Your task to perform on an android device: Open ESPN.com Image 0: 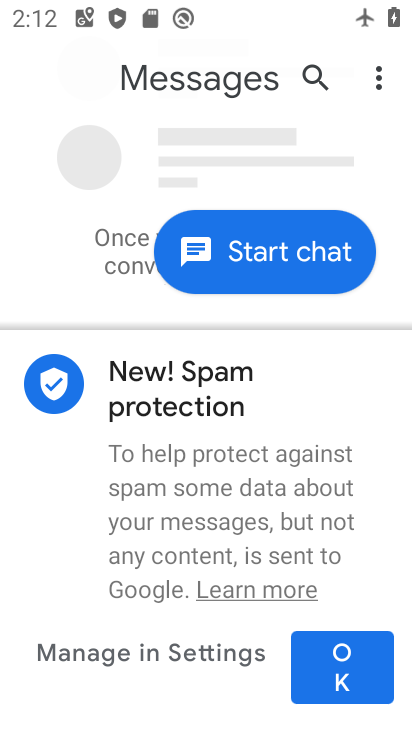
Step 0: press home button
Your task to perform on an android device: Open ESPN.com Image 1: 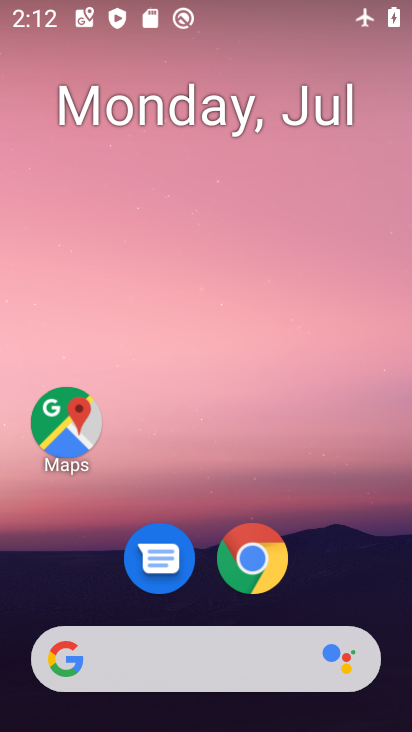
Step 1: press home button
Your task to perform on an android device: Open ESPN.com Image 2: 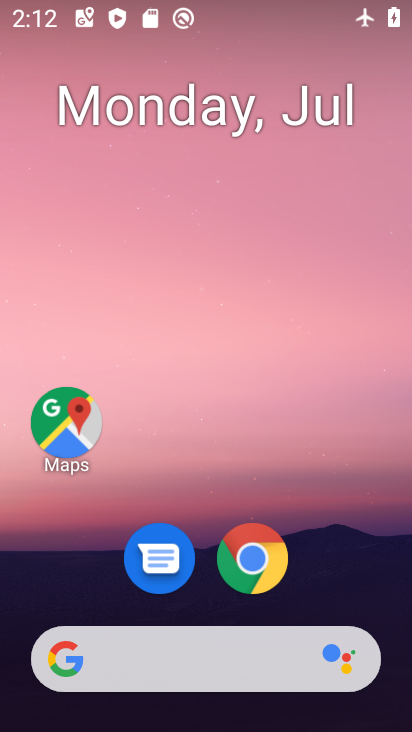
Step 2: drag from (357, 530) to (353, 97)
Your task to perform on an android device: Open ESPN.com Image 3: 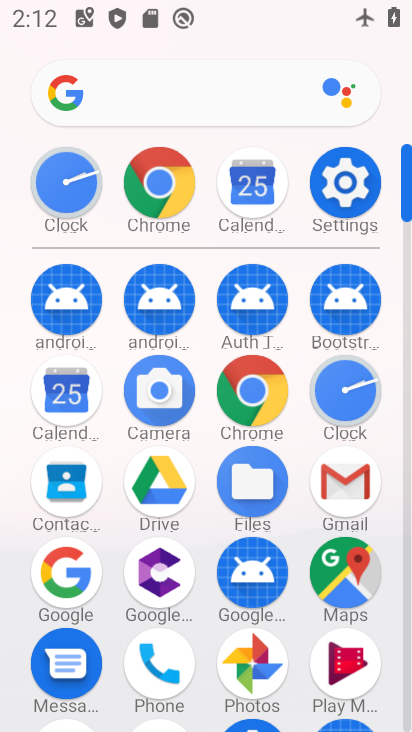
Step 3: click (261, 382)
Your task to perform on an android device: Open ESPN.com Image 4: 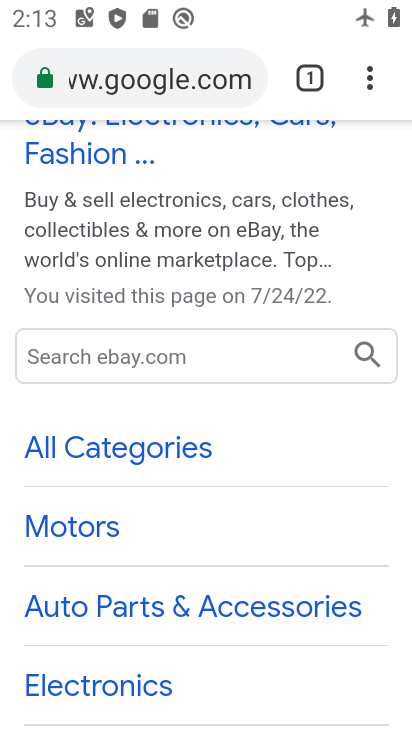
Step 4: click (174, 86)
Your task to perform on an android device: Open ESPN.com Image 5: 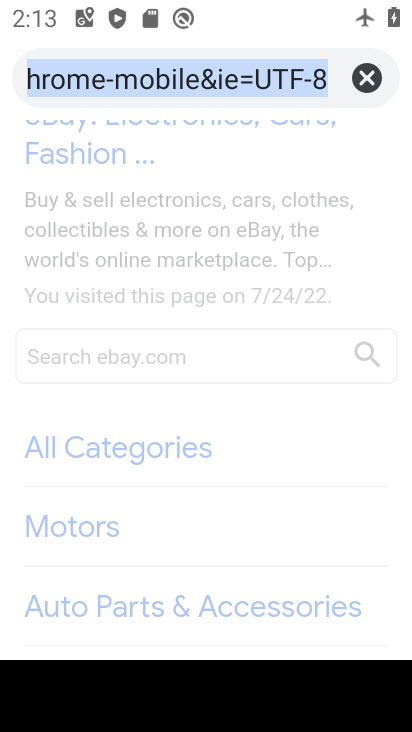
Step 5: type "espn.com"
Your task to perform on an android device: Open ESPN.com Image 6: 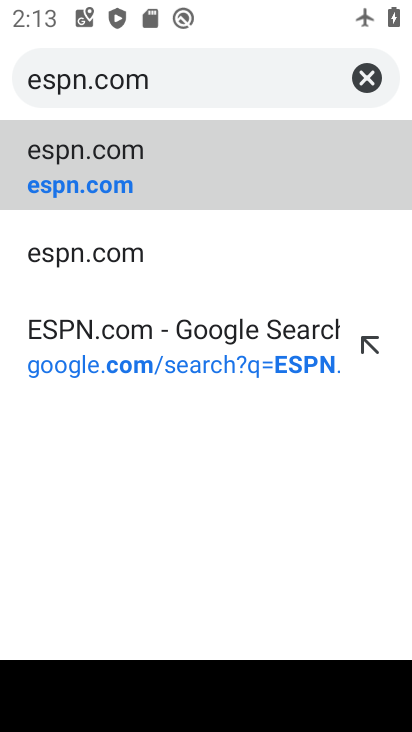
Step 6: click (298, 189)
Your task to perform on an android device: Open ESPN.com Image 7: 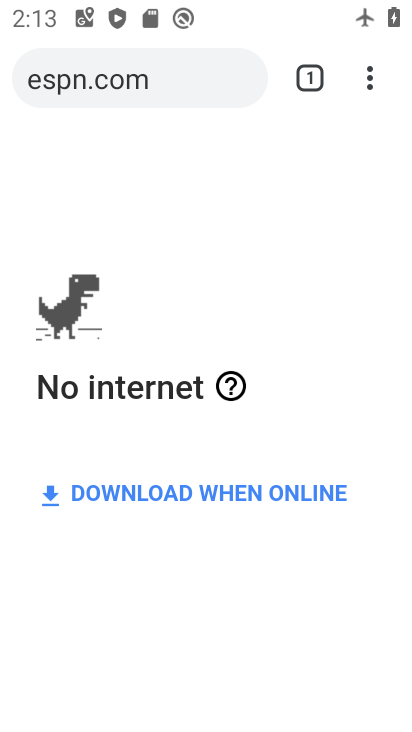
Step 7: task complete